Your task to perform on an android device: Turn off the flashlight Image 0: 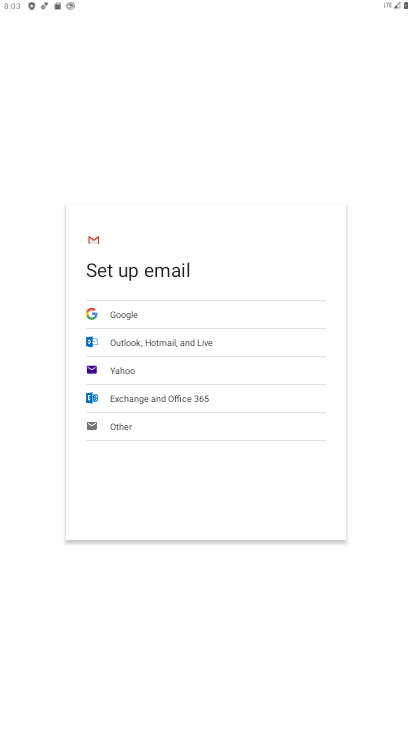
Step 0: press home button
Your task to perform on an android device: Turn off the flashlight Image 1: 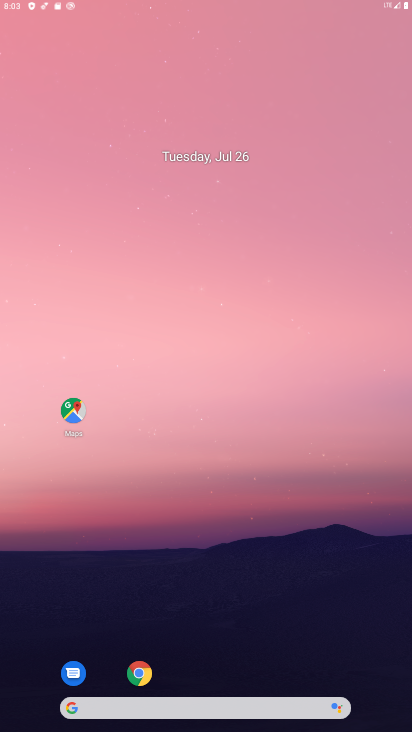
Step 1: drag from (386, 651) to (151, 1)
Your task to perform on an android device: Turn off the flashlight Image 2: 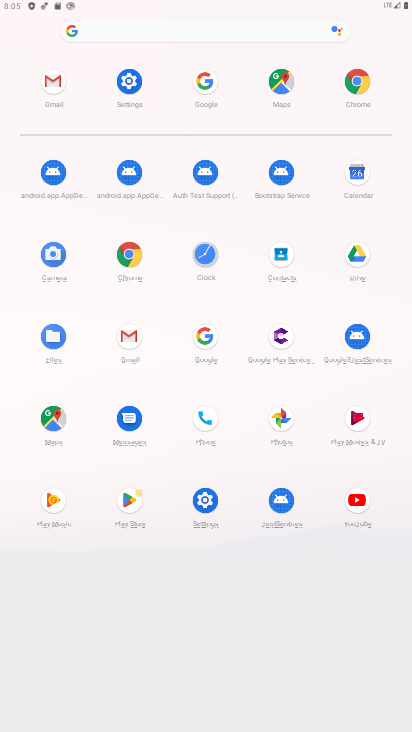
Step 2: click (209, 502)
Your task to perform on an android device: Turn off the flashlight Image 3: 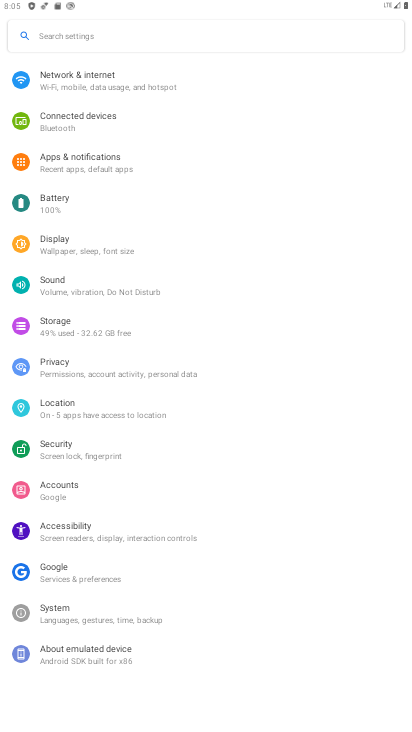
Step 3: task complete